Your task to perform on an android device: set the stopwatch Image 0: 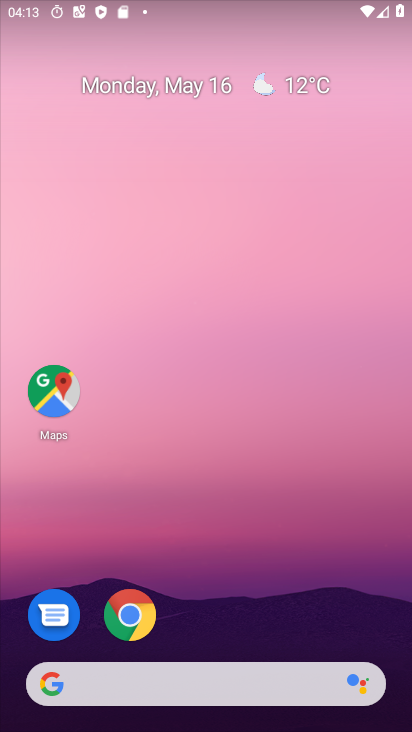
Step 0: drag from (299, 586) to (79, 67)
Your task to perform on an android device: set the stopwatch Image 1: 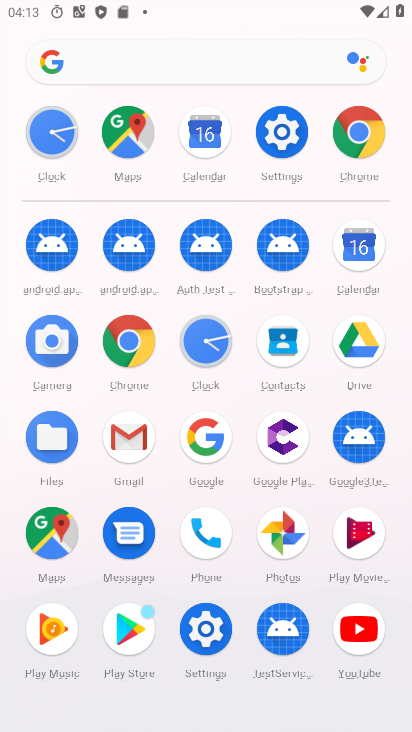
Step 1: click (195, 339)
Your task to perform on an android device: set the stopwatch Image 2: 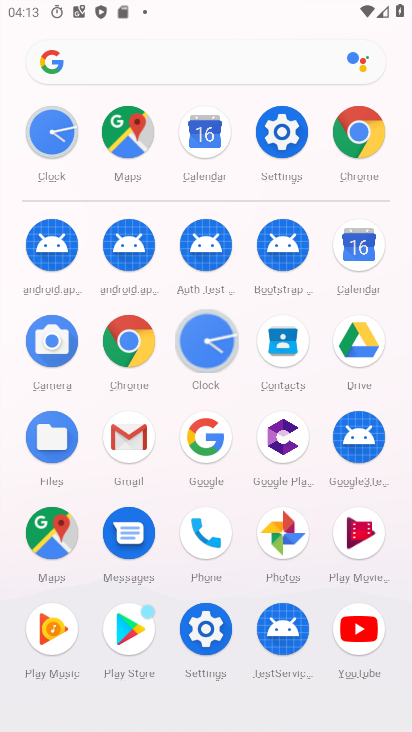
Step 2: click (195, 339)
Your task to perform on an android device: set the stopwatch Image 3: 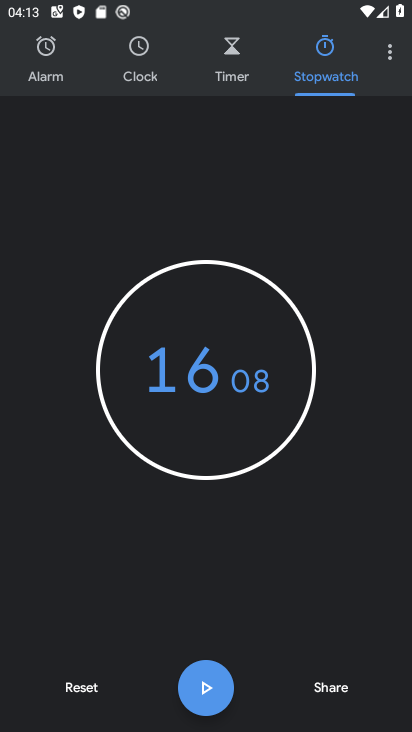
Step 3: click (212, 669)
Your task to perform on an android device: set the stopwatch Image 4: 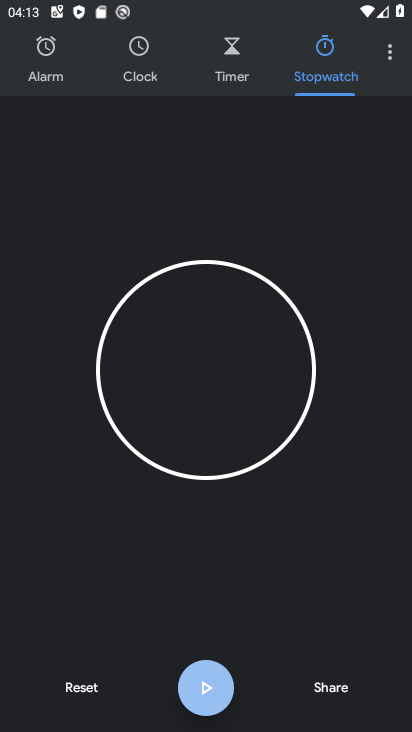
Step 4: click (212, 696)
Your task to perform on an android device: set the stopwatch Image 5: 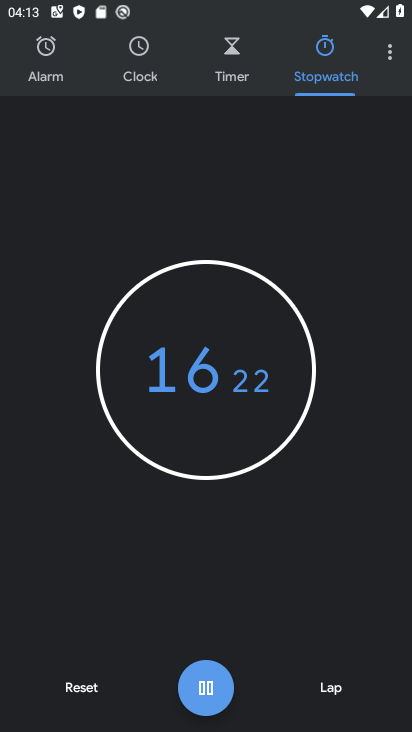
Step 5: click (212, 696)
Your task to perform on an android device: set the stopwatch Image 6: 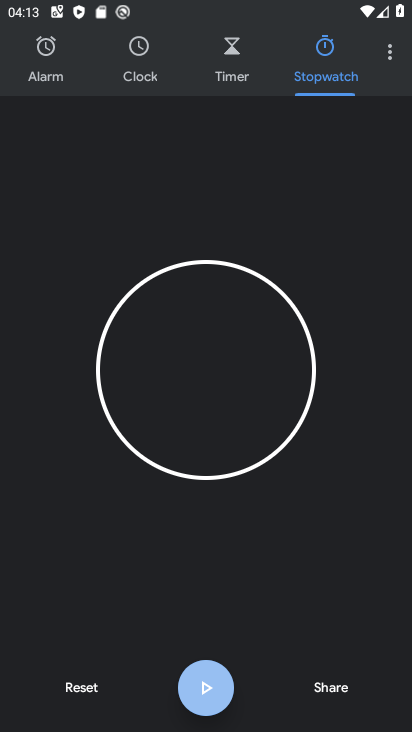
Step 6: click (205, 686)
Your task to perform on an android device: set the stopwatch Image 7: 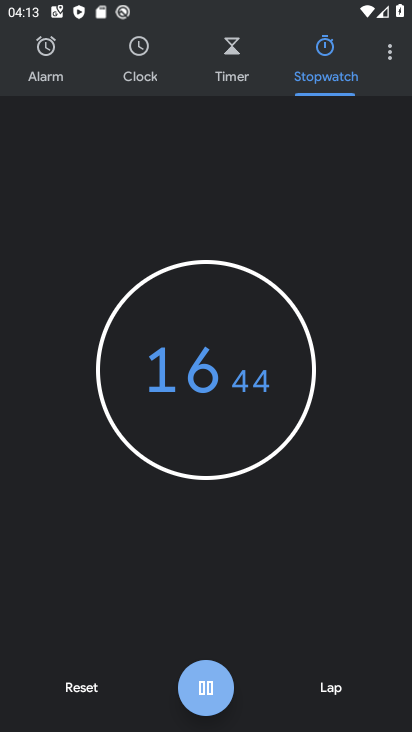
Step 7: click (204, 683)
Your task to perform on an android device: set the stopwatch Image 8: 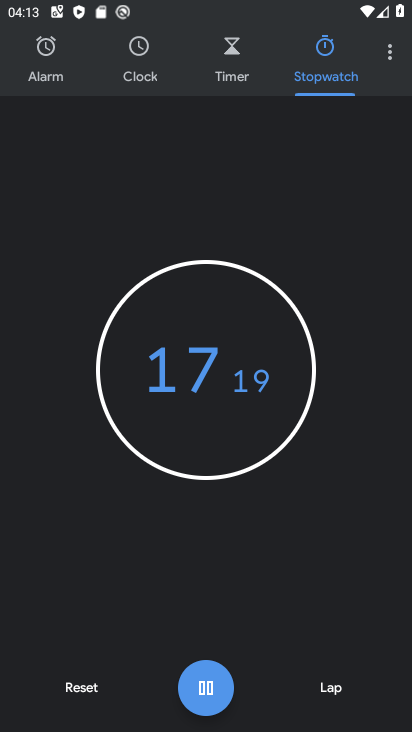
Step 8: click (203, 681)
Your task to perform on an android device: set the stopwatch Image 9: 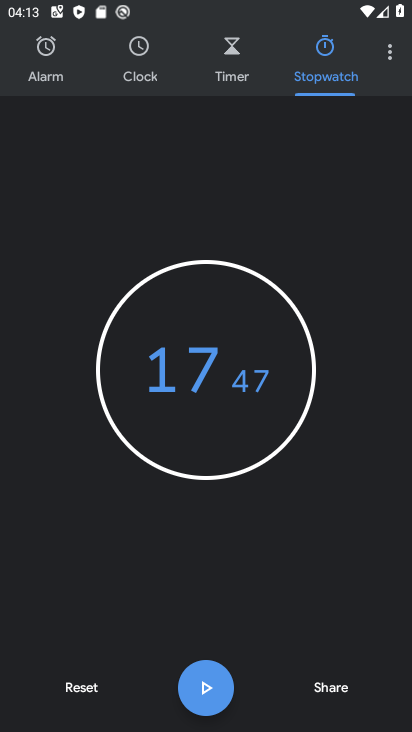
Step 9: task complete